Your task to perform on an android device: star an email in the gmail app Image 0: 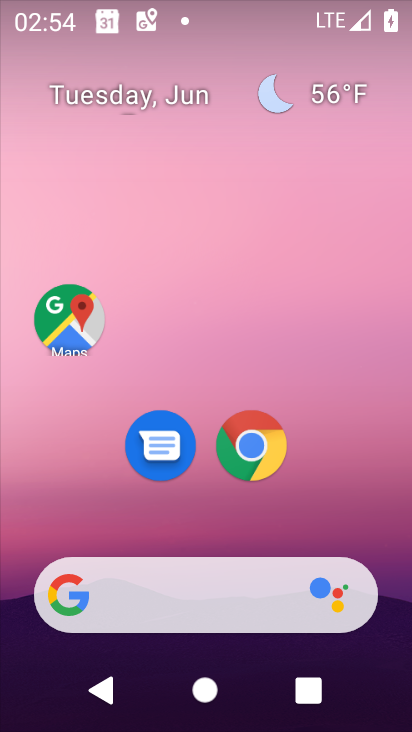
Step 0: drag from (246, 614) to (274, 202)
Your task to perform on an android device: star an email in the gmail app Image 1: 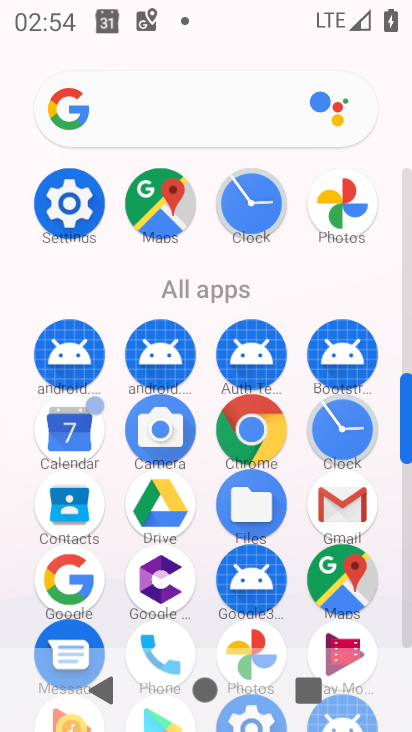
Step 1: click (354, 514)
Your task to perform on an android device: star an email in the gmail app Image 2: 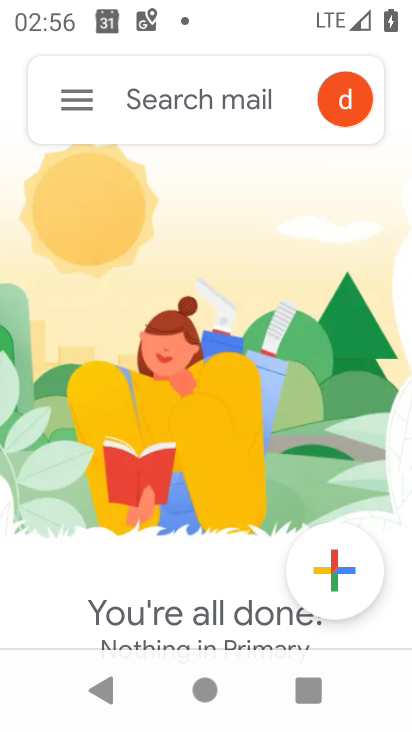
Step 2: task complete